Your task to perform on an android device: Clear the shopping cart on bestbuy. Add "bose soundlink" to the cart on bestbuy, then select checkout. Image 0: 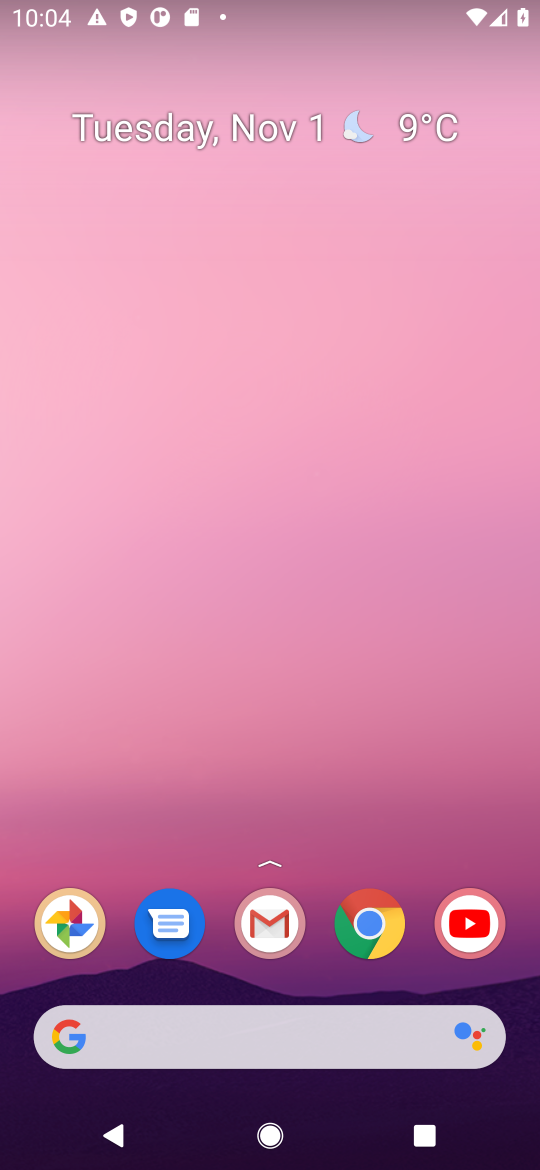
Step 0: drag from (310, 978) to (485, 130)
Your task to perform on an android device: Clear the shopping cart on bestbuy. Add "bose soundlink" to the cart on bestbuy, then select checkout. Image 1: 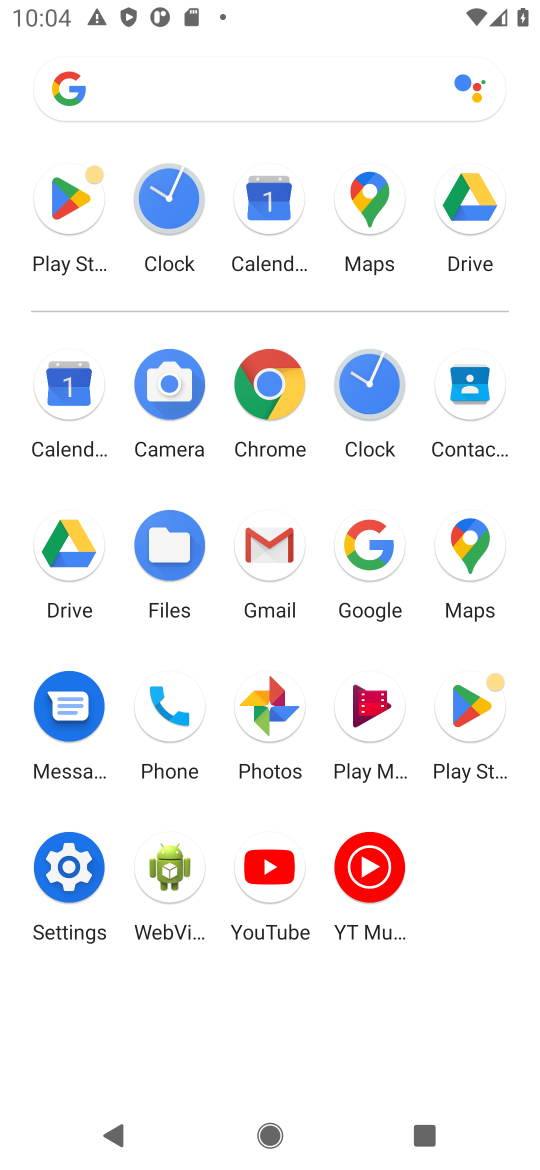
Step 1: click (269, 388)
Your task to perform on an android device: Clear the shopping cart on bestbuy. Add "bose soundlink" to the cart on bestbuy, then select checkout. Image 2: 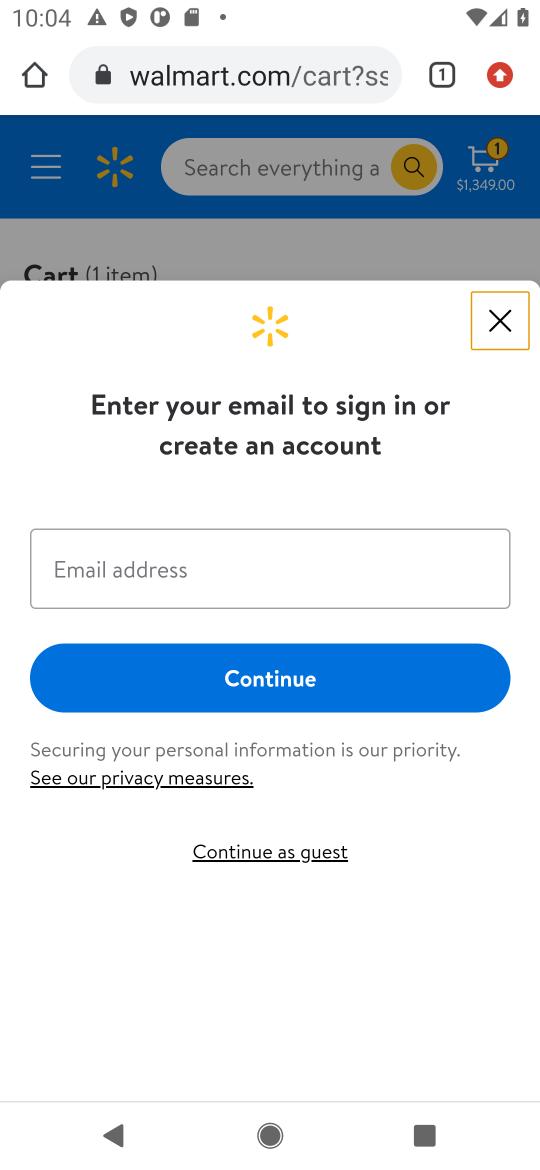
Step 2: click (339, 62)
Your task to perform on an android device: Clear the shopping cart on bestbuy. Add "bose soundlink" to the cart on bestbuy, then select checkout. Image 3: 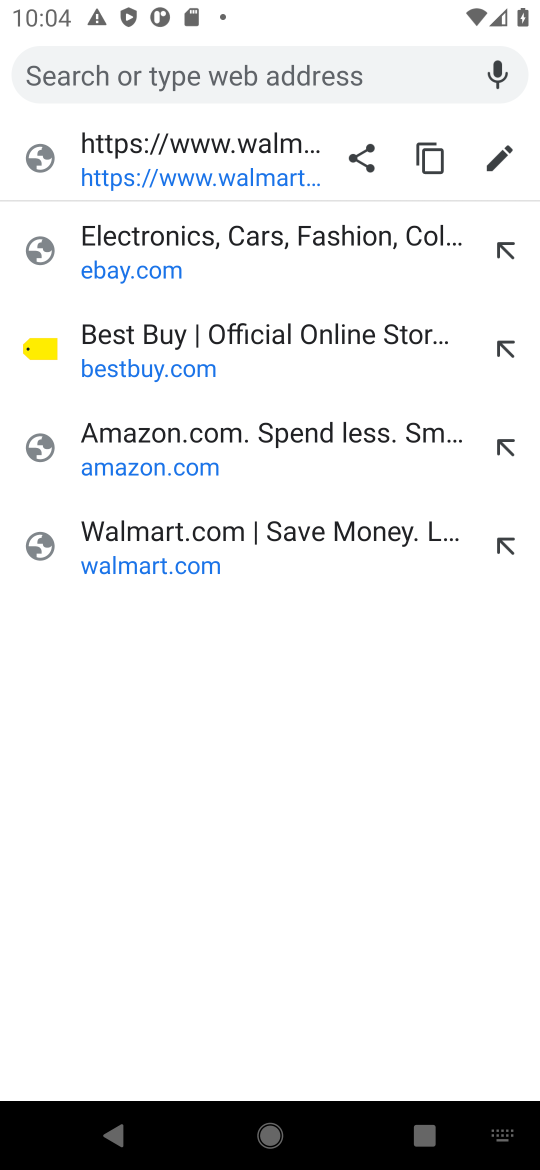
Step 3: type "bestbuy.com"
Your task to perform on an android device: Clear the shopping cart on bestbuy. Add "bose soundlink" to the cart on bestbuy, then select checkout. Image 4: 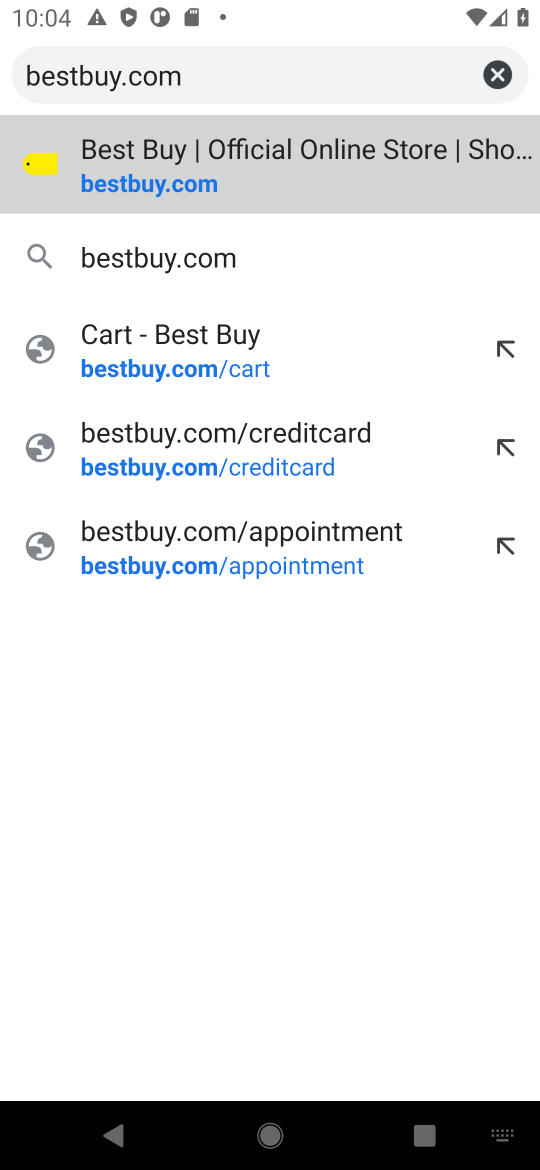
Step 4: press enter
Your task to perform on an android device: Clear the shopping cart on bestbuy. Add "bose soundlink" to the cart on bestbuy, then select checkout. Image 5: 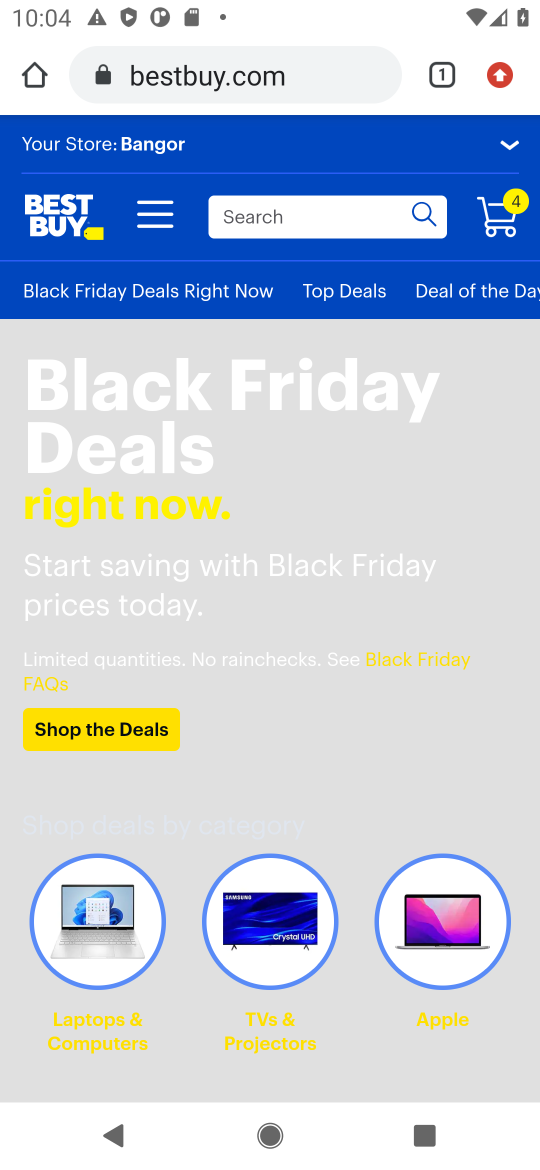
Step 5: click (491, 216)
Your task to perform on an android device: Clear the shopping cart on bestbuy. Add "bose soundlink" to the cart on bestbuy, then select checkout. Image 6: 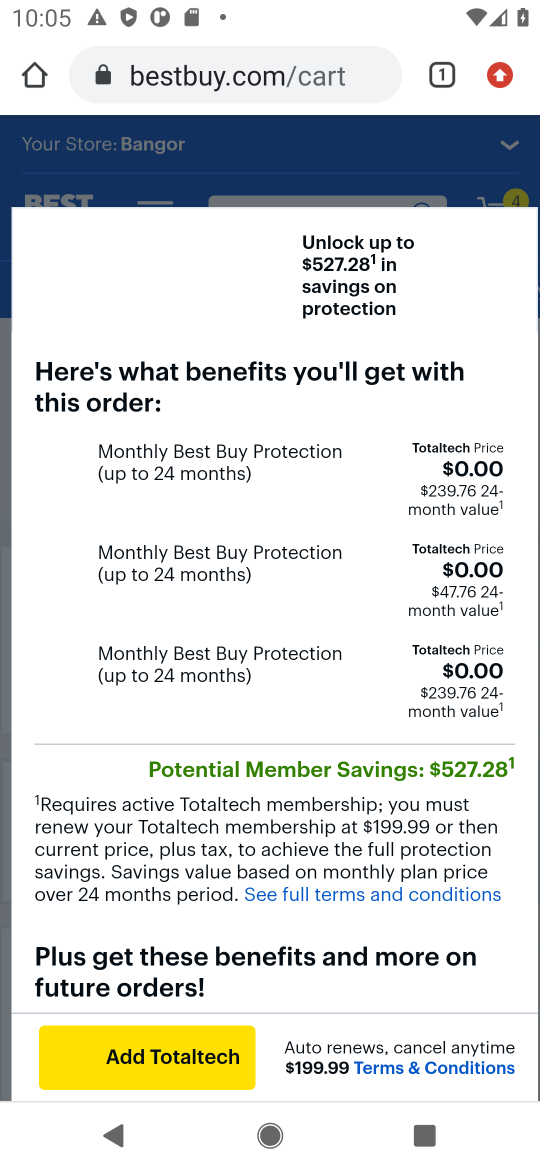
Step 6: drag from (306, 920) to (454, 268)
Your task to perform on an android device: Clear the shopping cart on bestbuy. Add "bose soundlink" to the cart on bestbuy, then select checkout. Image 7: 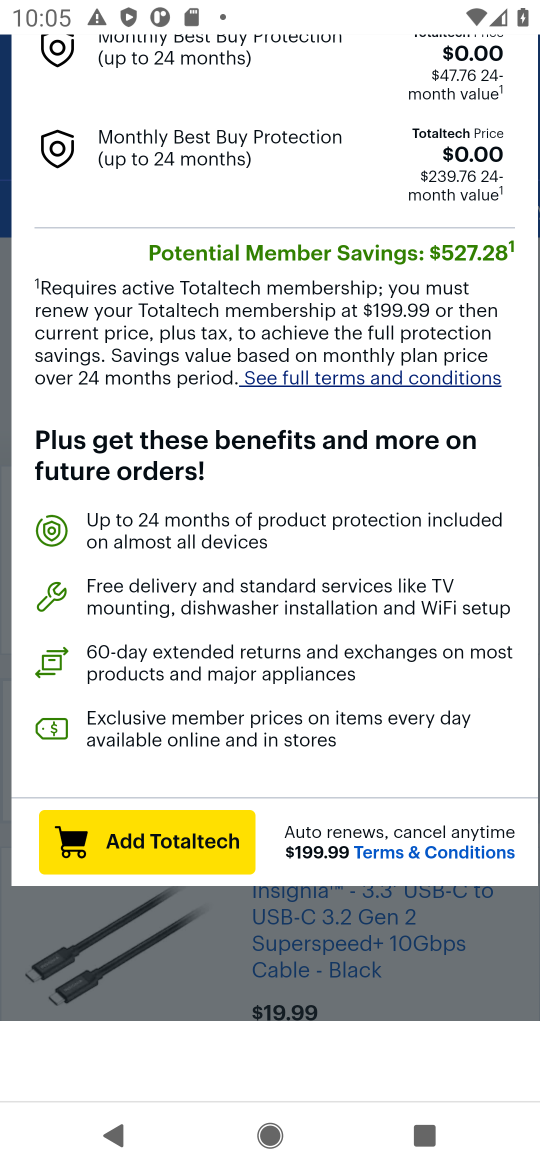
Step 7: click (485, 262)
Your task to perform on an android device: Clear the shopping cart on bestbuy. Add "bose soundlink" to the cart on bestbuy, then select checkout. Image 8: 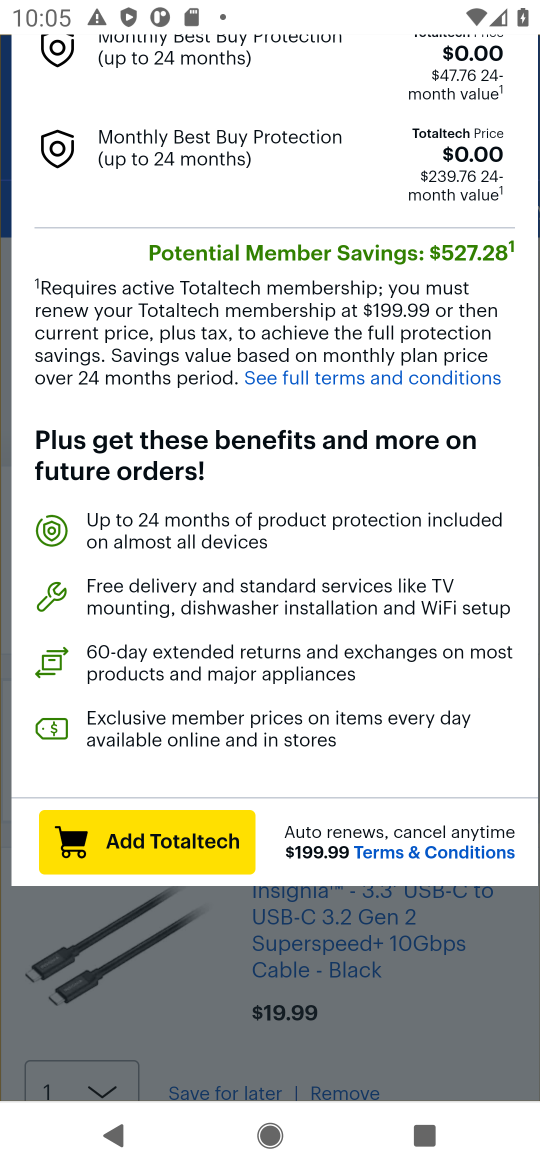
Step 8: drag from (379, 178) to (310, 508)
Your task to perform on an android device: Clear the shopping cart on bestbuy. Add "bose soundlink" to the cart on bestbuy, then select checkout. Image 9: 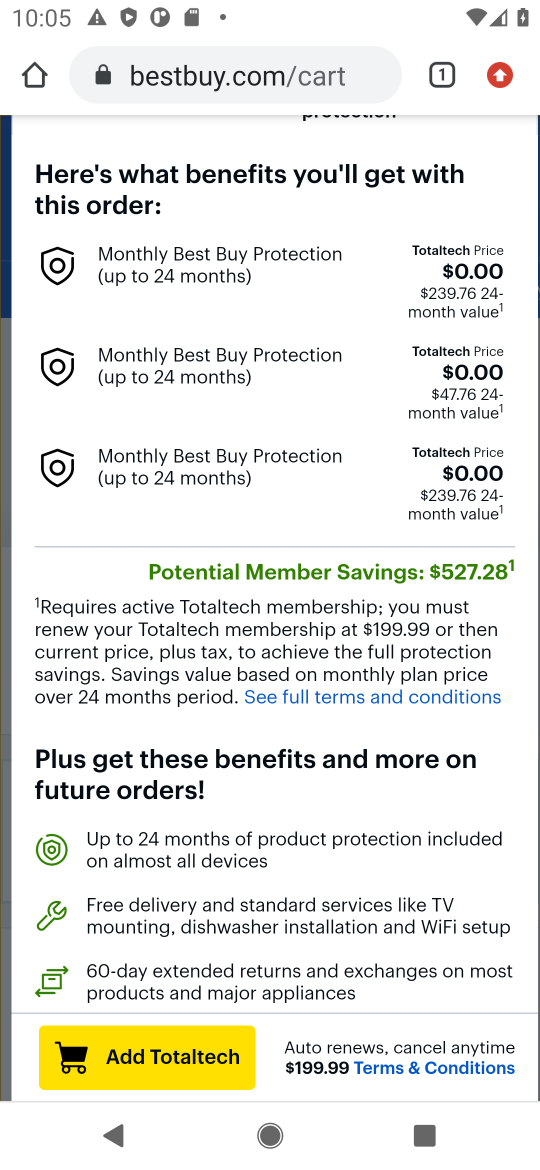
Step 9: drag from (441, 202) to (256, 655)
Your task to perform on an android device: Clear the shopping cart on bestbuy. Add "bose soundlink" to the cart on bestbuy, then select checkout. Image 10: 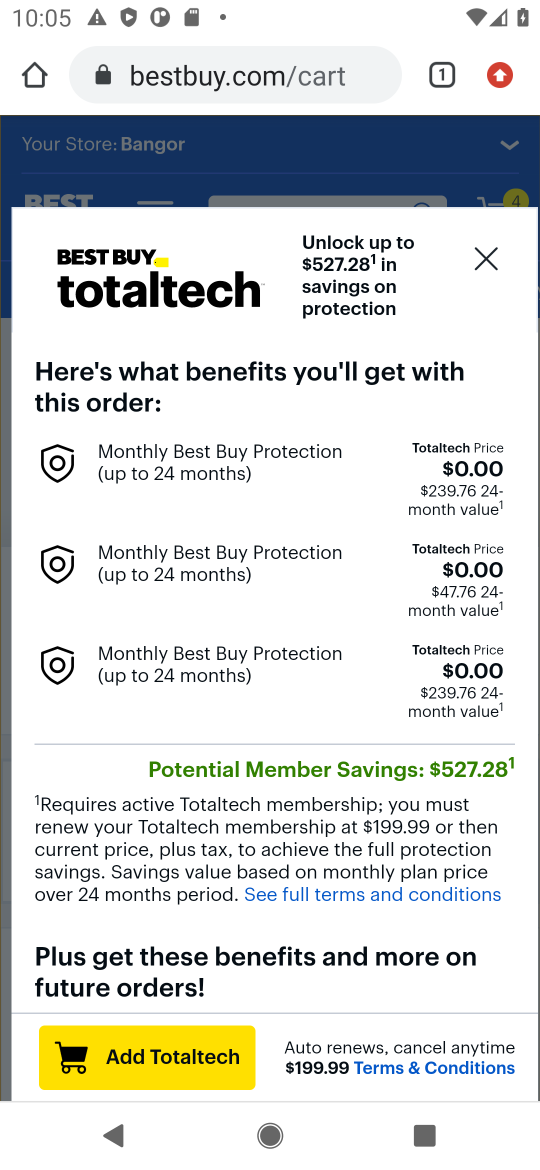
Step 10: click (482, 211)
Your task to perform on an android device: Clear the shopping cart on bestbuy. Add "bose soundlink" to the cart on bestbuy, then select checkout. Image 11: 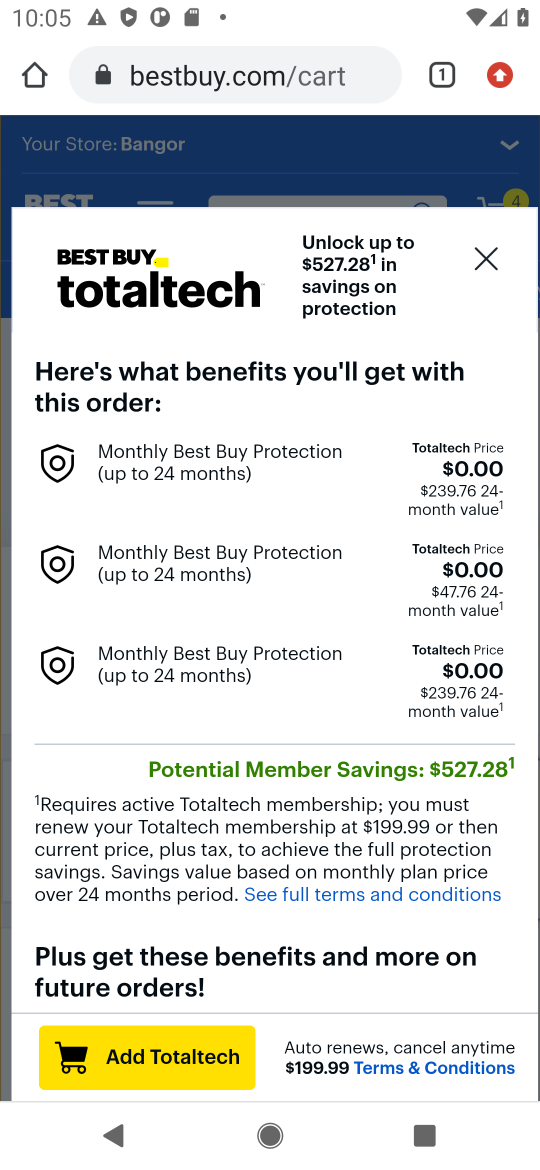
Step 11: click (488, 250)
Your task to perform on an android device: Clear the shopping cart on bestbuy. Add "bose soundlink" to the cart on bestbuy, then select checkout. Image 12: 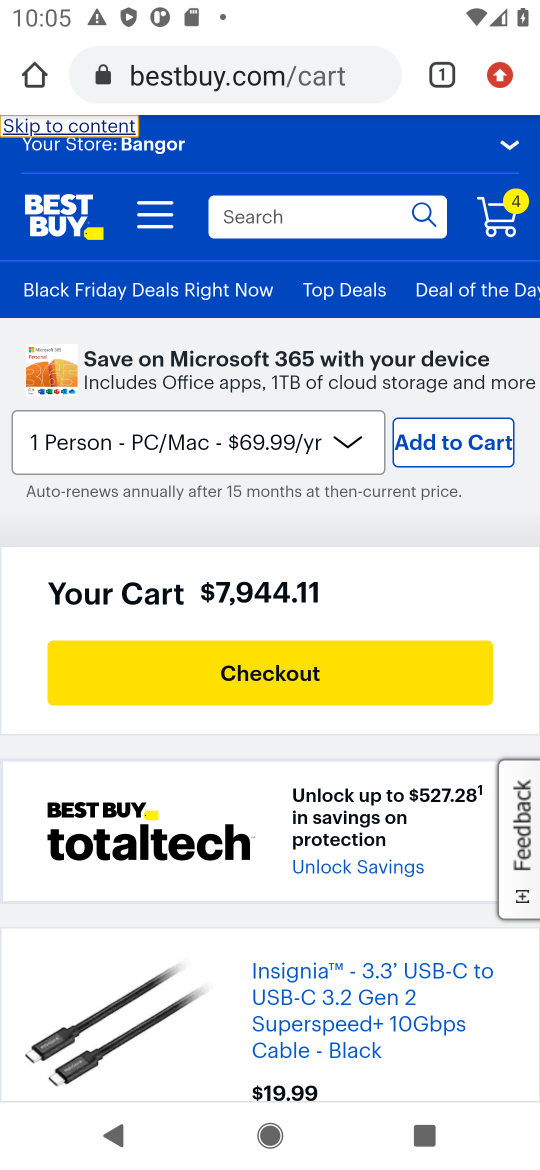
Step 12: drag from (416, 1015) to (409, 495)
Your task to perform on an android device: Clear the shopping cart on bestbuy. Add "bose soundlink" to the cart on bestbuy, then select checkout. Image 13: 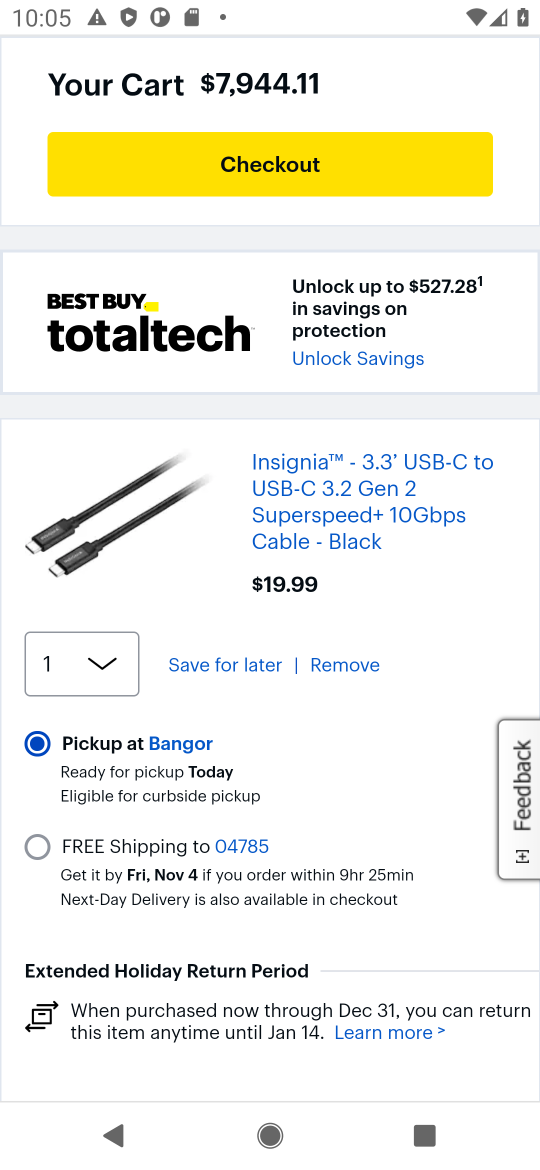
Step 13: click (355, 659)
Your task to perform on an android device: Clear the shopping cart on bestbuy. Add "bose soundlink" to the cart on bestbuy, then select checkout. Image 14: 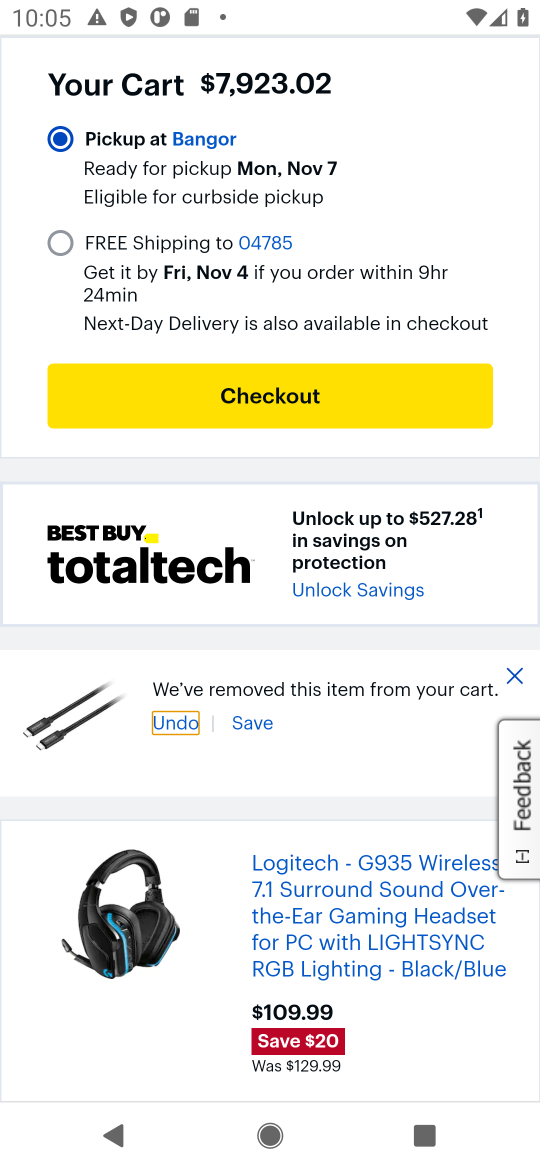
Step 14: drag from (216, 196) to (336, 751)
Your task to perform on an android device: Clear the shopping cart on bestbuy. Add "bose soundlink" to the cart on bestbuy, then select checkout. Image 15: 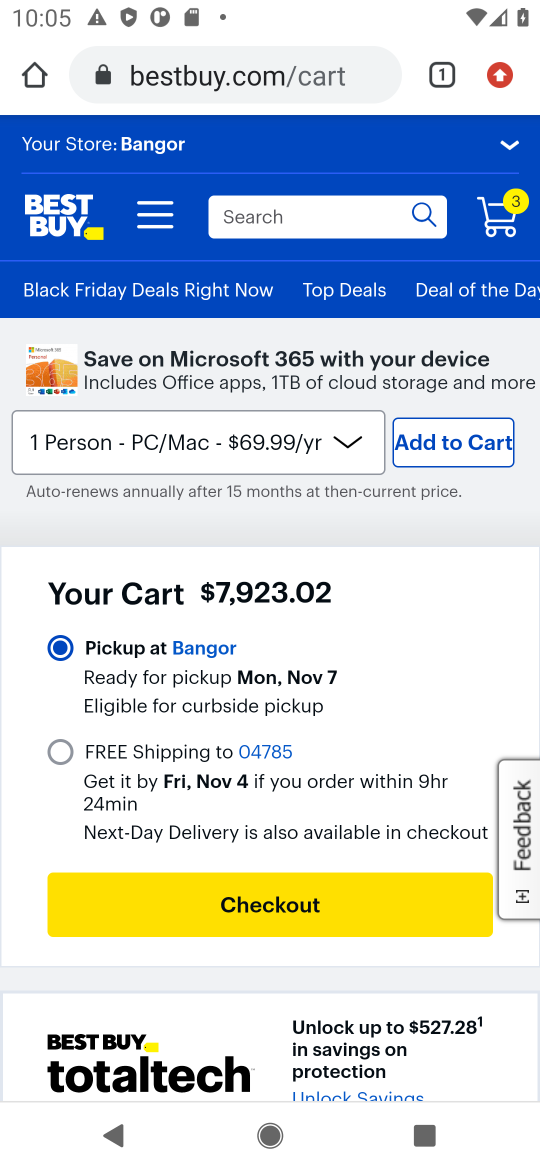
Step 15: click (352, 213)
Your task to perform on an android device: Clear the shopping cart on bestbuy. Add "bose soundlink" to the cart on bestbuy, then select checkout. Image 16: 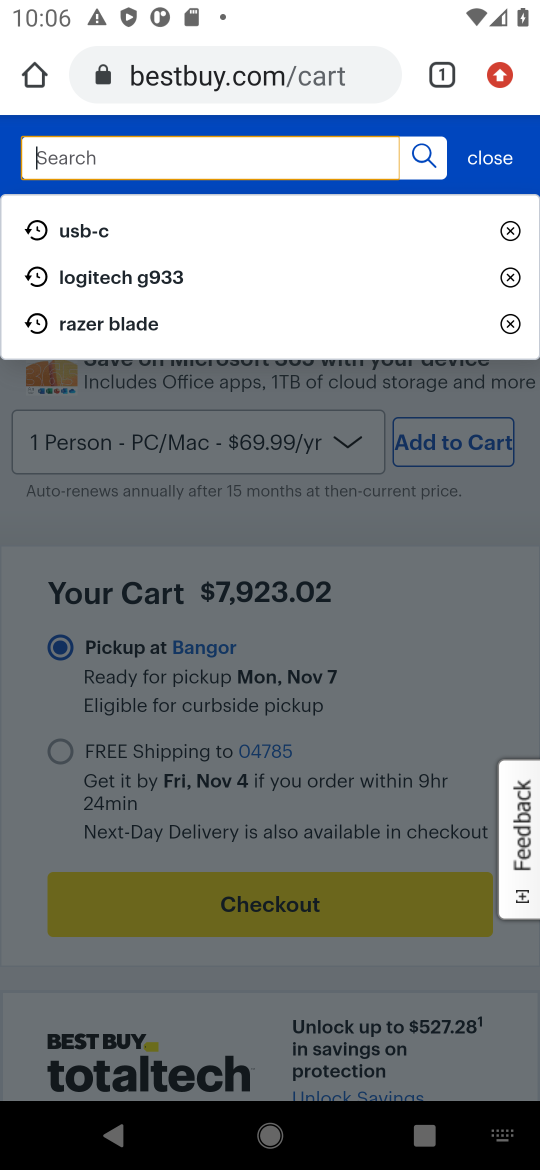
Step 16: type "bose soundlink"
Your task to perform on an android device: Clear the shopping cart on bestbuy. Add "bose soundlink" to the cart on bestbuy, then select checkout. Image 17: 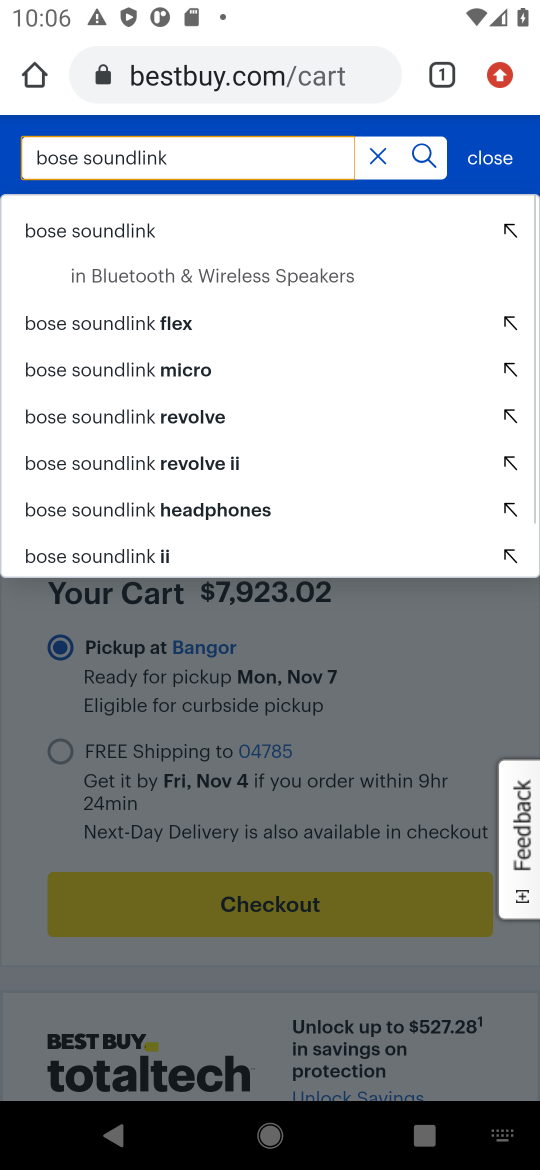
Step 17: press enter
Your task to perform on an android device: Clear the shopping cart on bestbuy. Add "bose soundlink" to the cart on bestbuy, then select checkout. Image 18: 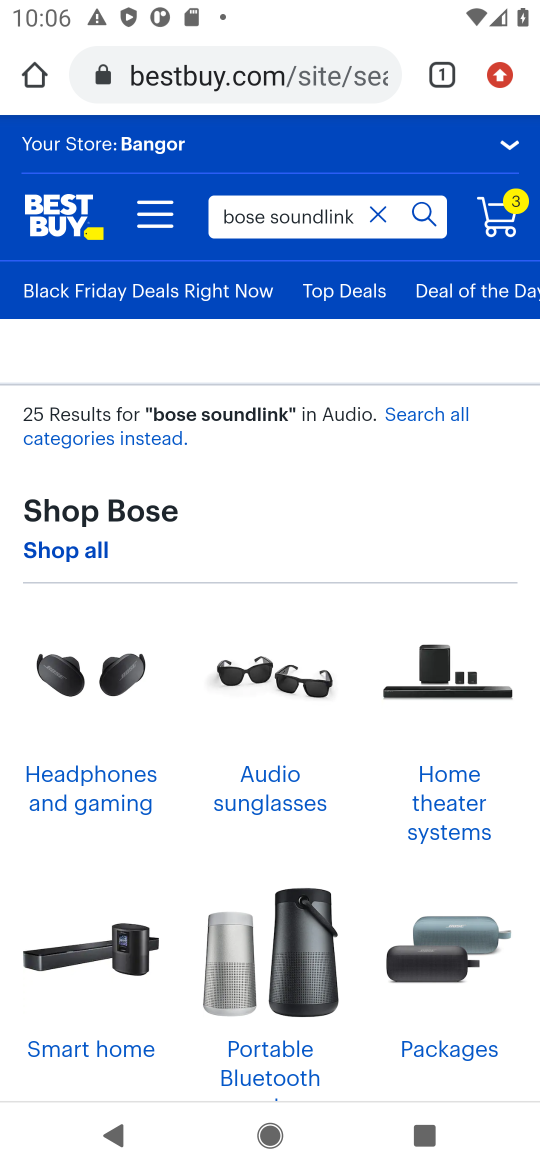
Step 18: drag from (147, 754) to (309, 50)
Your task to perform on an android device: Clear the shopping cart on bestbuy. Add "bose soundlink" to the cart on bestbuy, then select checkout. Image 19: 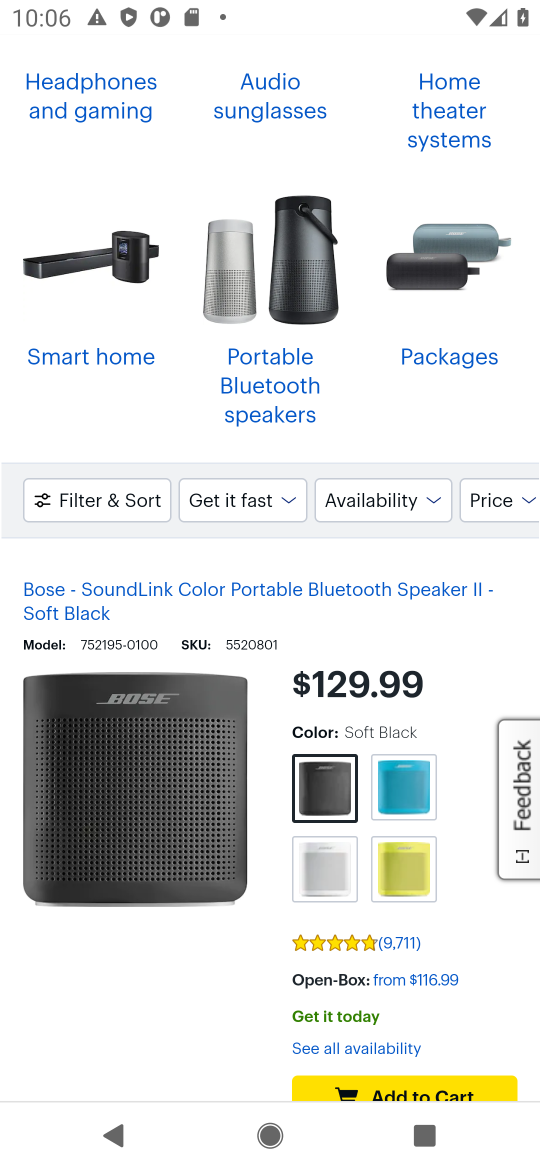
Step 19: click (451, 1083)
Your task to perform on an android device: Clear the shopping cart on bestbuy. Add "bose soundlink" to the cart on bestbuy, then select checkout. Image 20: 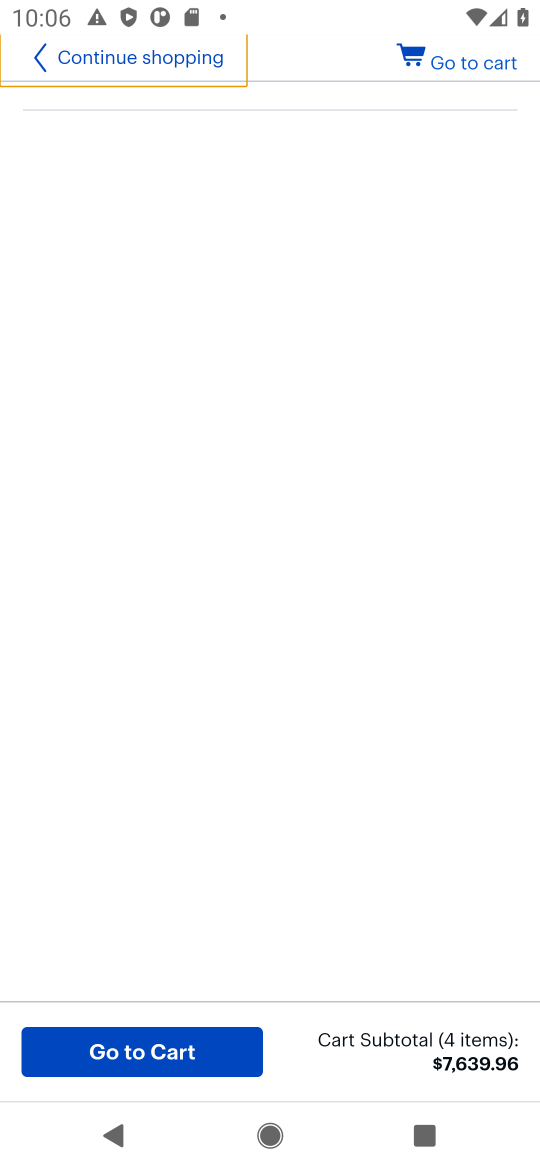
Step 20: drag from (291, 1013) to (263, 733)
Your task to perform on an android device: Clear the shopping cart on bestbuy. Add "bose soundlink" to the cart on bestbuy, then select checkout. Image 21: 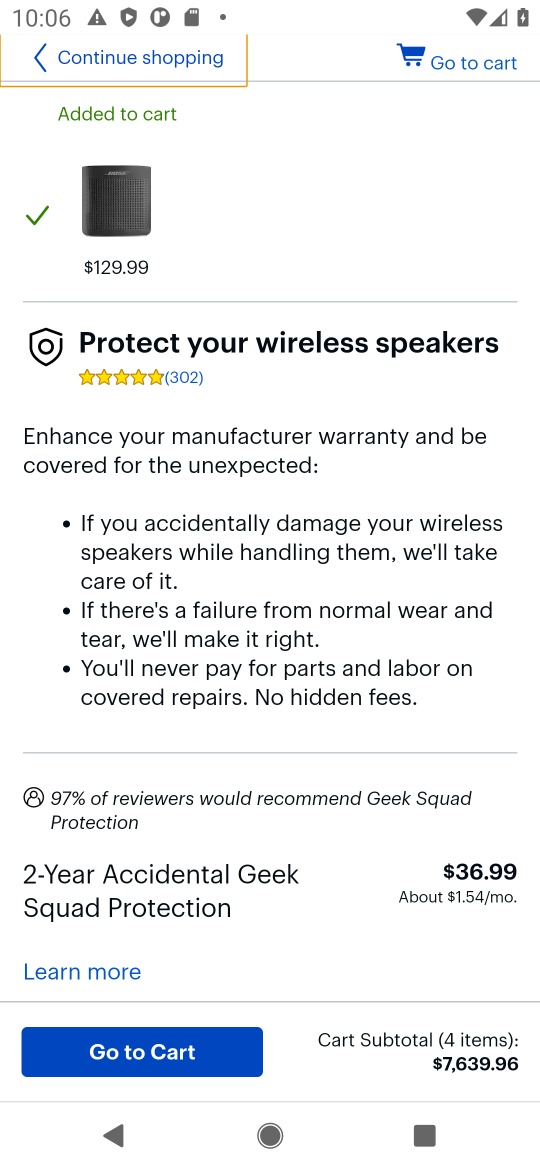
Step 21: click (158, 1042)
Your task to perform on an android device: Clear the shopping cart on bestbuy. Add "bose soundlink" to the cart on bestbuy, then select checkout. Image 22: 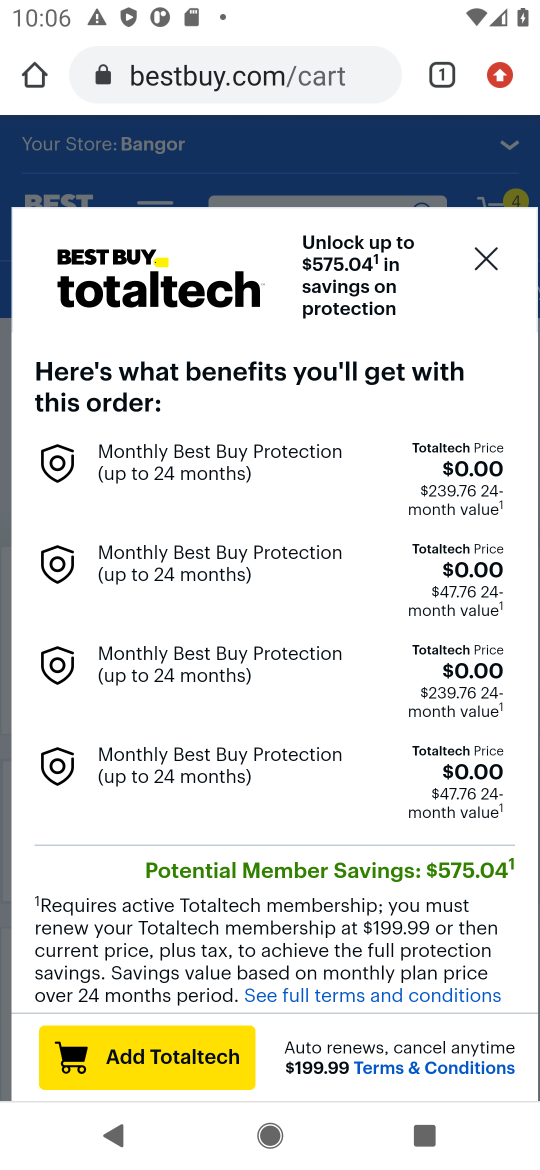
Step 22: click (479, 251)
Your task to perform on an android device: Clear the shopping cart on bestbuy. Add "bose soundlink" to the cart on bestbuy, then select checkout. Image 23: 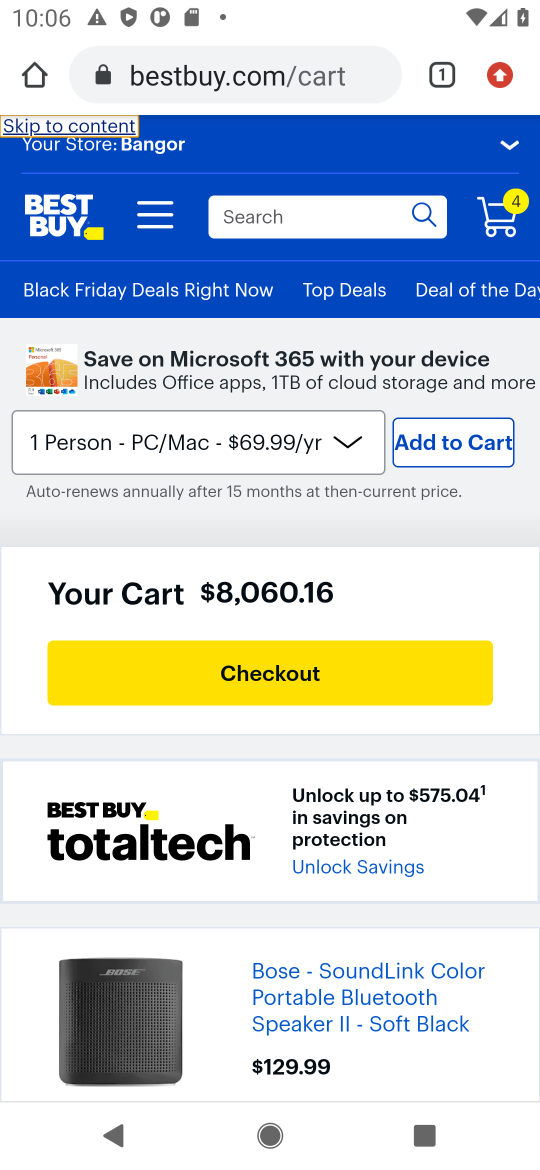
Step 23: click (290, 676)
Your task to perform on an android device: Clear the shopping cart on bestbuy. Add "bose soundlink" to the cart on bestbuy, then select checkout. Image 24: 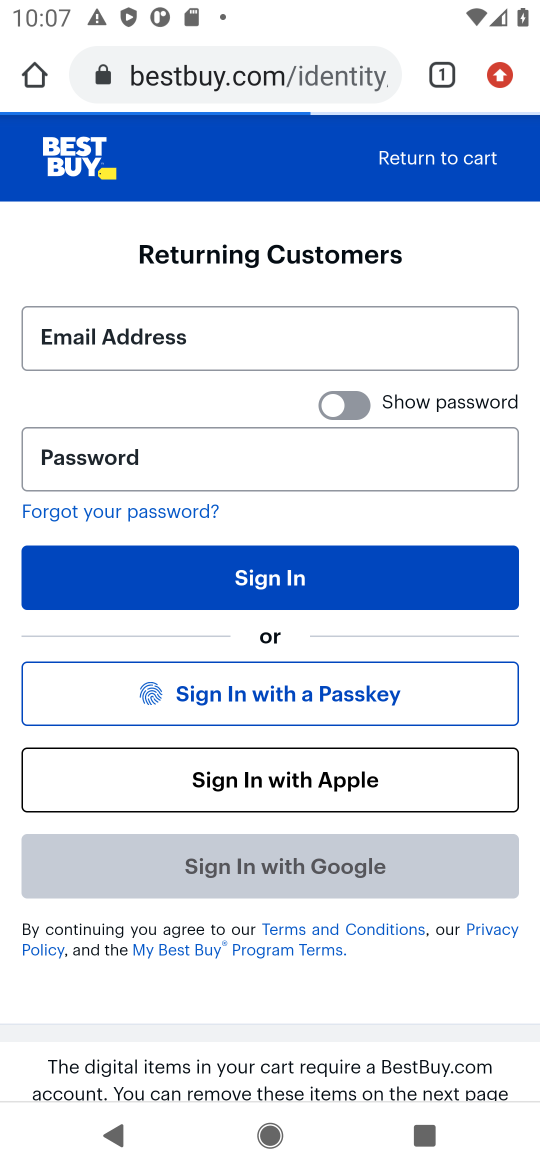
Step 24: task complete